Your task to perform on an android device: set an alarm Image 0: 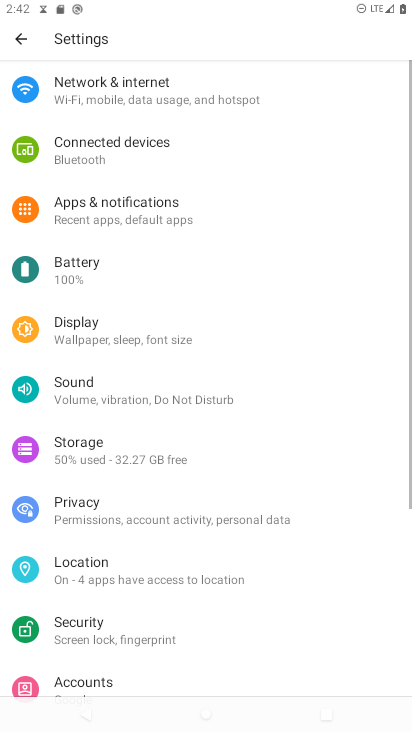
Step 0: press home button
Your task to perform on an android device: set an alarm Image 1: 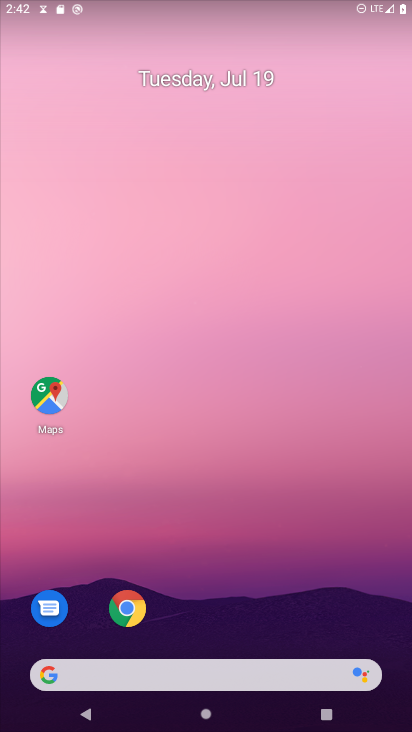
Step 1: drag from (290, 673) to (299, 30)
Your task to perform on an android device: set an alarm Image 2: 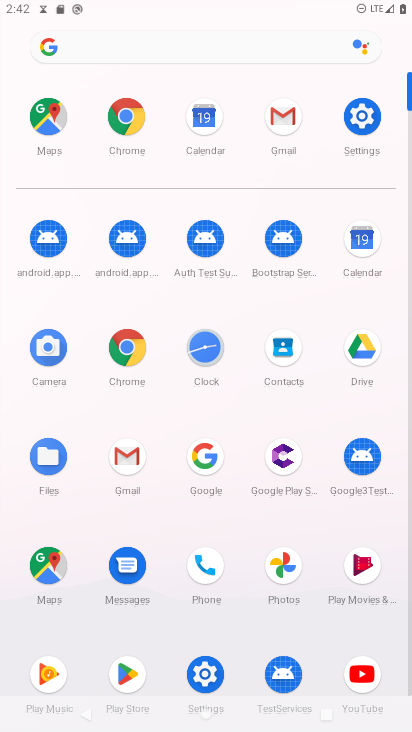
Step 2: click (202, 356)
Your task to perform on an android device: set an alarm Image 3: 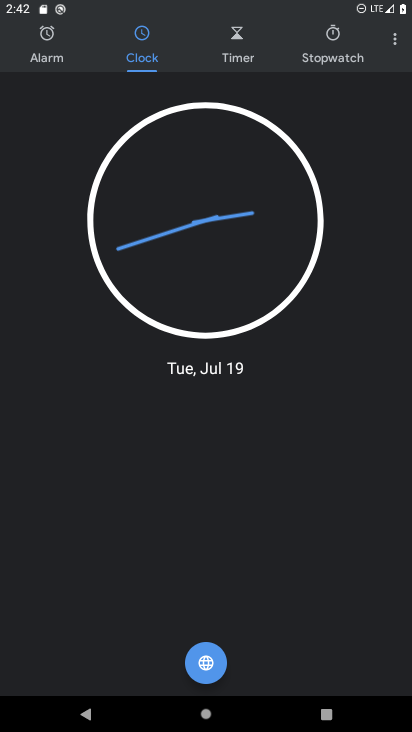
Step 3: click (35, 49)
Your task to perform on an android device: set an alarm Image 4: 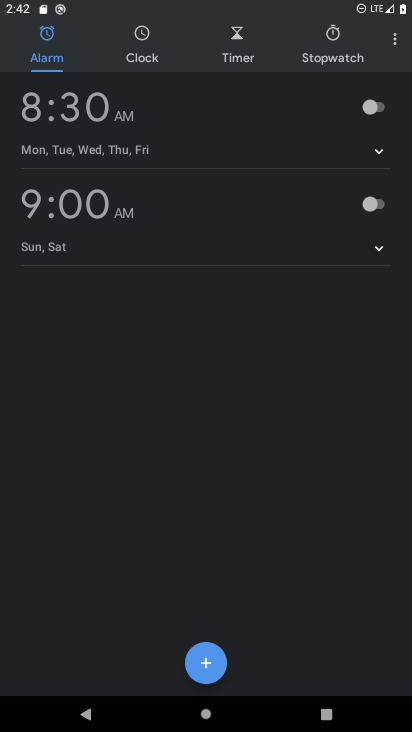
Step 4: click (379, 110)
Your task to perform on an android device: set an alarm Image 5: 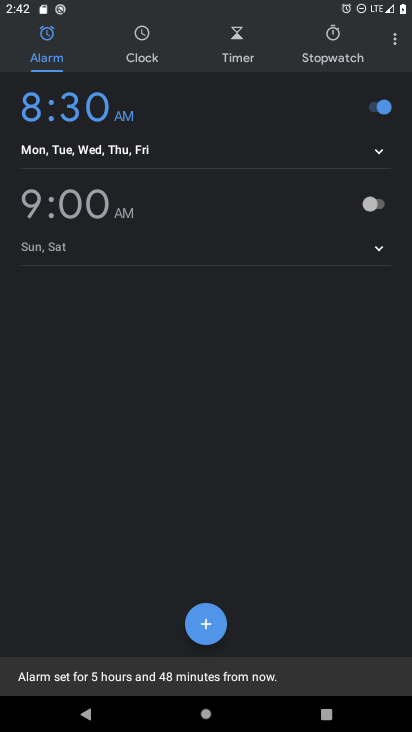
Step 5: task complete